Your task to perform on an android device: Toggle the flashlight Image 0: 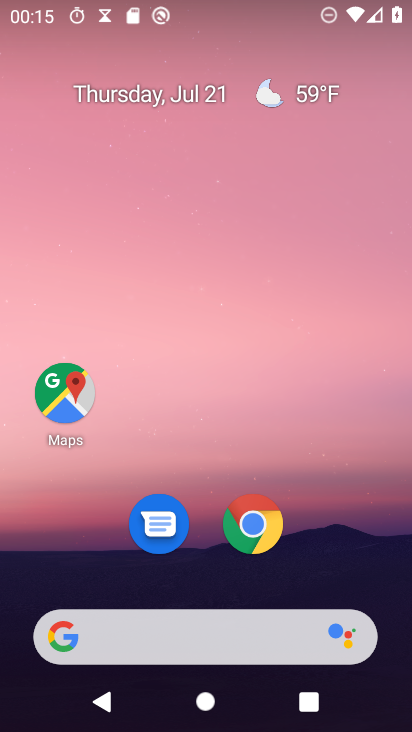
Step 0: press home button
Your task to perform on an android device: Toggle the flashlight Image 1: 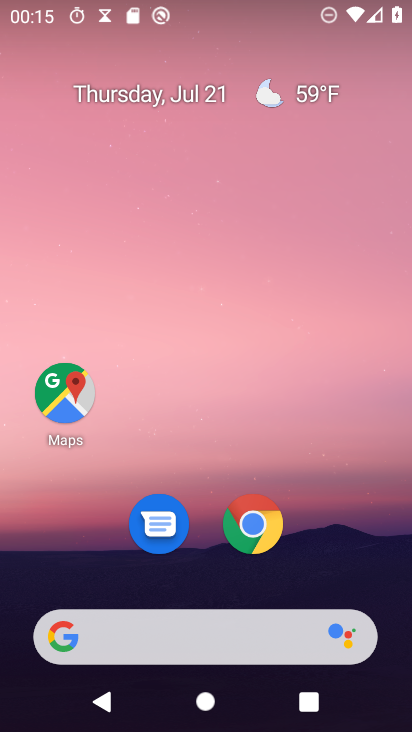
Step 1: task complete